Your task to perform on an android device: change the clock display to show seconds Image 0: 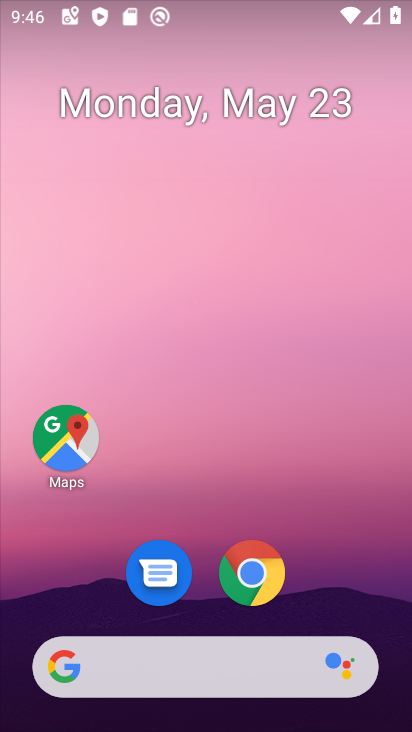
Step 0: drag from (377, 615) to (385, 302)
Your task to perform on an android device: change the clock display to show seconds Image 1: 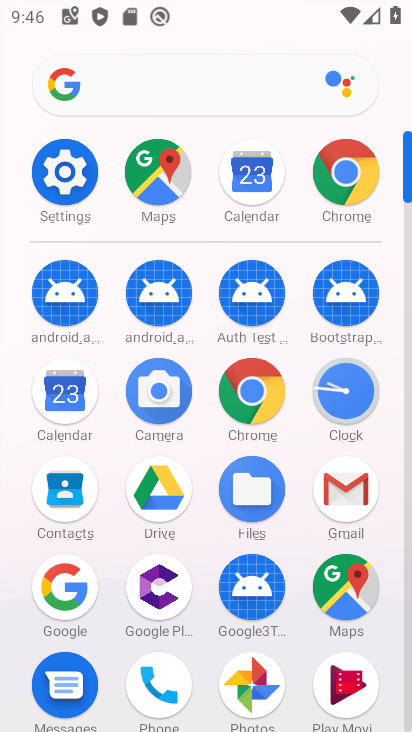
Step 1: click (354, 389)
Your task to perform on an android device: change the clock display to show seconds Image 2: 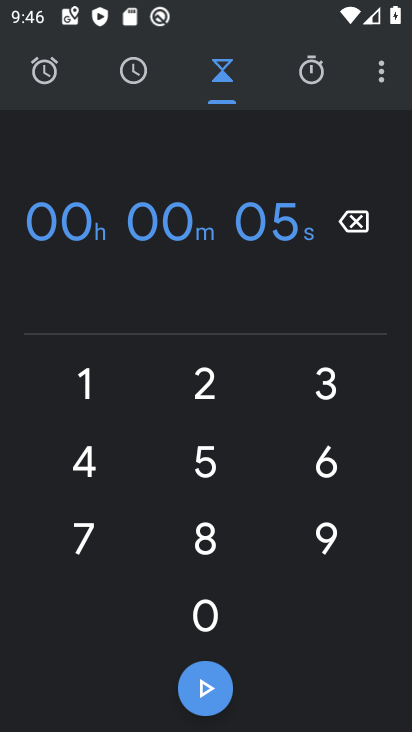
Step 2: click (381, 81)
Your task to perform on an android device: change the clock display to show seconds Image 3: 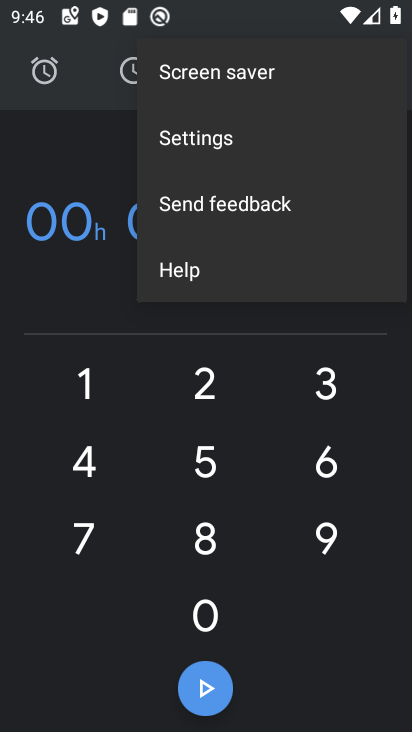
Step 3: click (243, 154)
Your task to perform on an android device: change the clock display to show seconds Image 4: 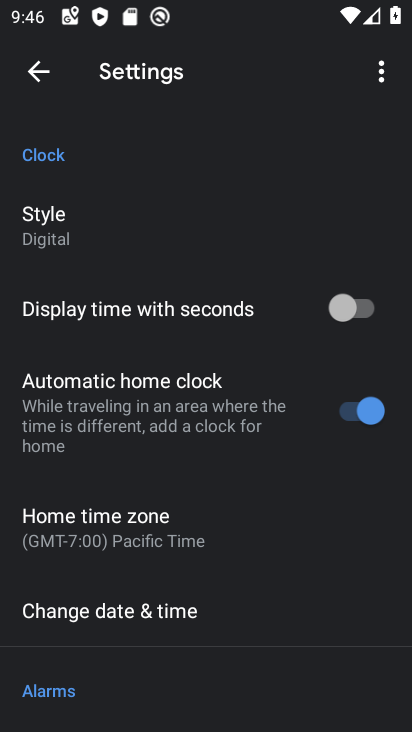
Step 4: drag from (298, 552) to (298, 440)
Your task to perform on an android device: change the clock display to show seconds Image 5: 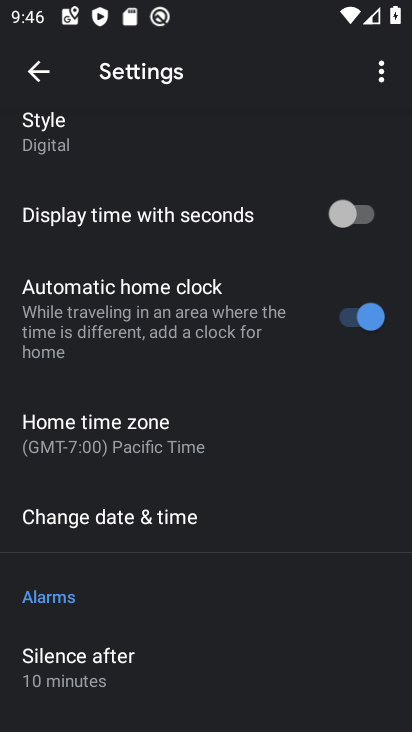
Step 5: drag from (291, 545) to (283, 451)
Your task to perform on an android device: change the clock display to show seconds Image 6: 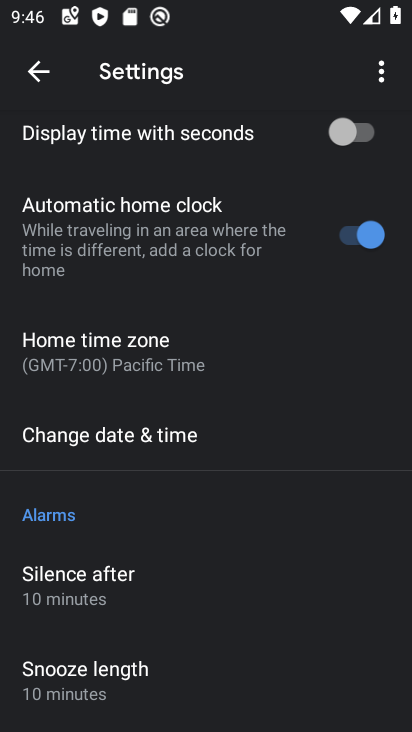
Step 6: drag from (295, 553) to (310, 452)
Your task to perform on an android device: change the clock display to show seconds Image 7: 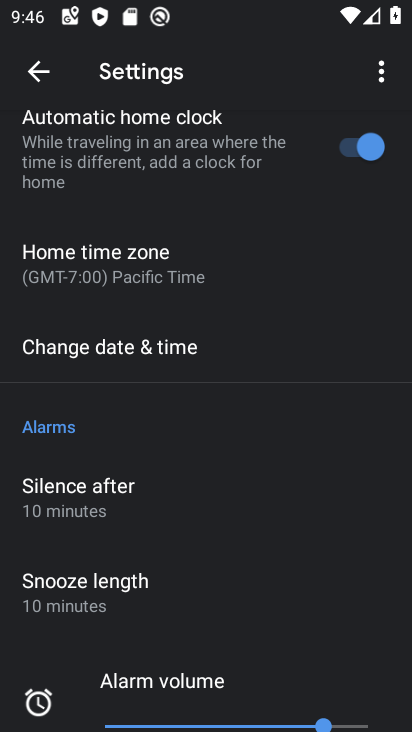
Step 7: drag from (327, 604) to (321, 496)
Your task to perform on an android device: change the clock display to show seconds Image 8: 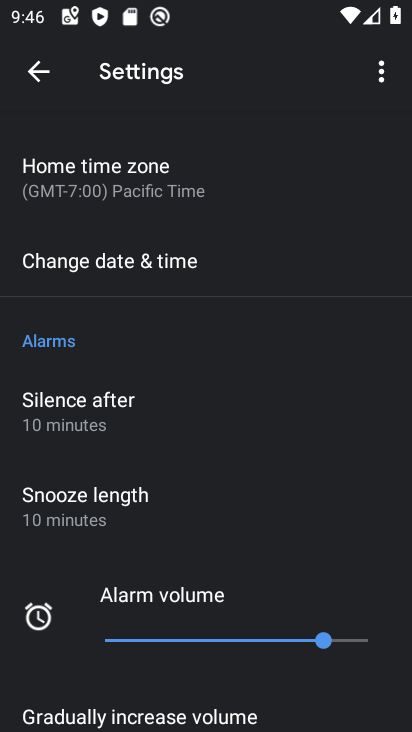
Step 8: drag from (318, 561) to (345, 479)
Your task to perform on an android device: change the clock display to show seconds Image 9: 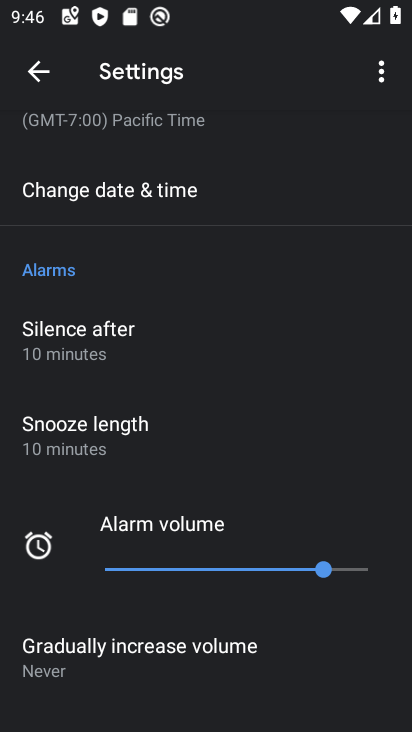
Step 9: drag from (314, 600) to (298, 523)
Your task to perform on an android device: change the clock display to show seconds Image 10: 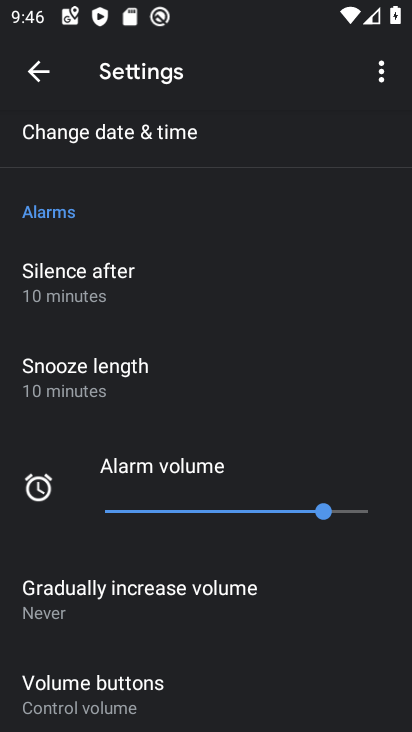
Step 10: drag from (286, 611) to (279, 521)
Your task to perform on an android device: change the clock display to show seconds Image 11: 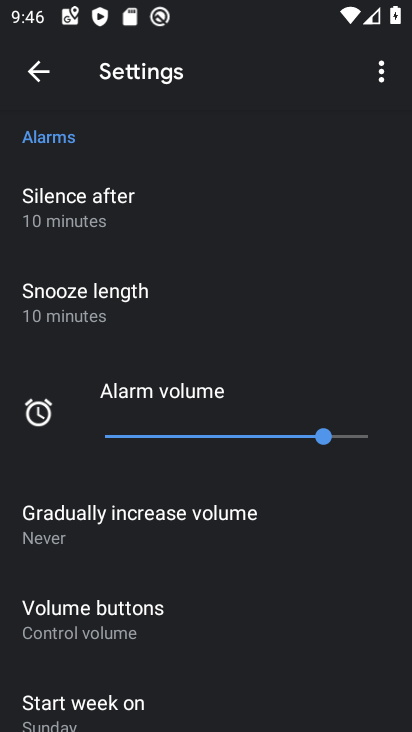
Step 11: drag from (289, 642) to (276, 464)
Your task to perform on an android device: change the clock display to show seconds Image 12: 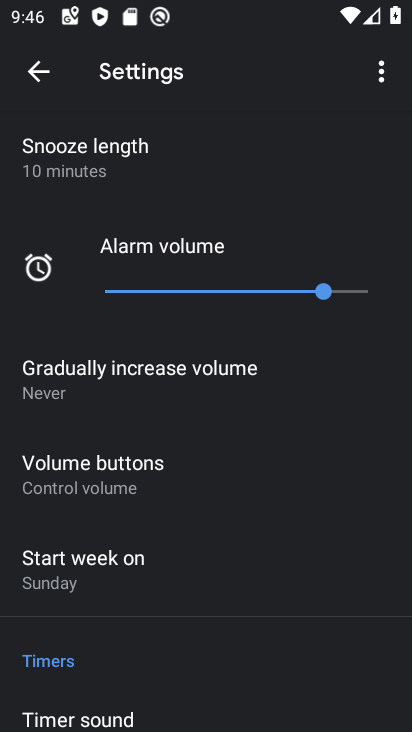
Step 12: drag from (304, 230) to (301, 336)
Your task to perform on an android device: change the clock display to show seconds Image 13: 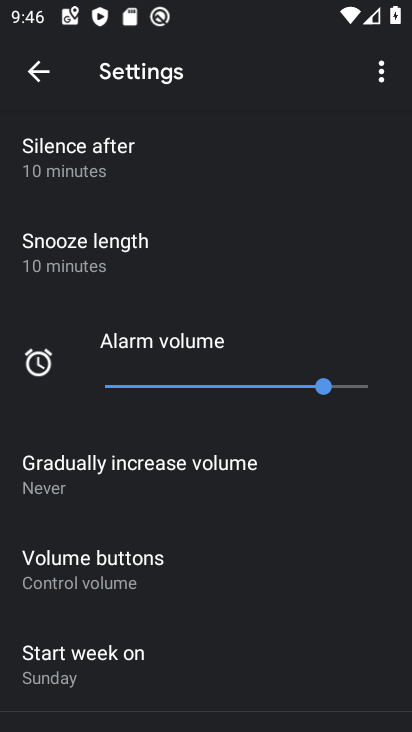
Step 13: drag from (311, 228) to (292, 350)
Your task to perform on an android device: change the clock display to show seconds Image 14: 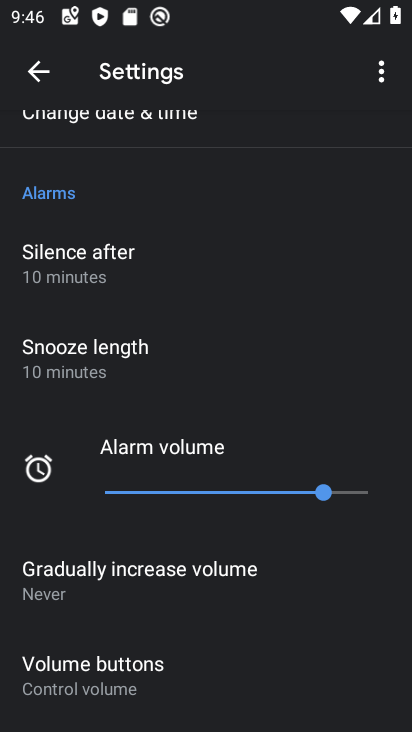
Step 14: drag from (279, 223) to (270, 341)
Your task to perform on an android device: change the clock display to show seconds Image 15: 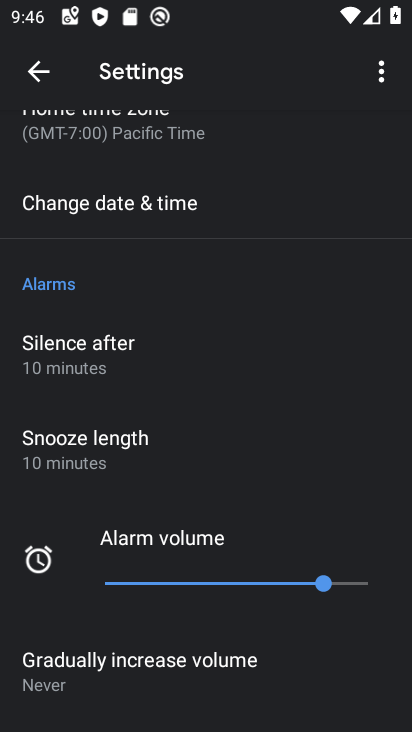
Step 15: drag from (280, 208) to (270, 322)
Your task to perform on an android device: change the clock display to show seconds Image 16: 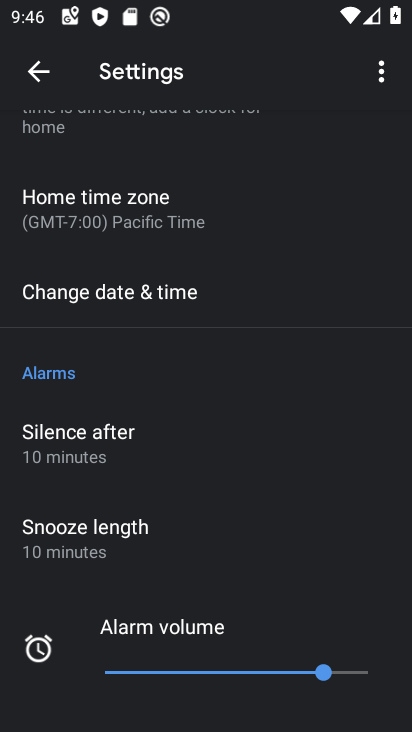
Step 16: drag from (260, 204) to (240, 355)
Your task to perform on an android device: change the clock display to show seconds Image 17: 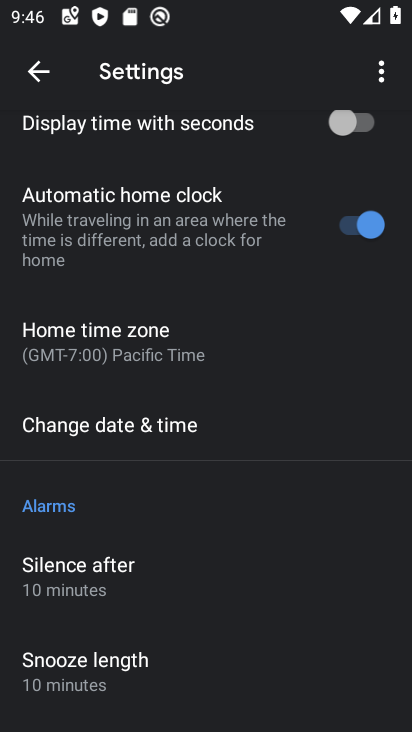
Step 17: drag from (268, 206) to (284, 367)
Your task to perform on an android device: change the clock display to show seconds Image 18: 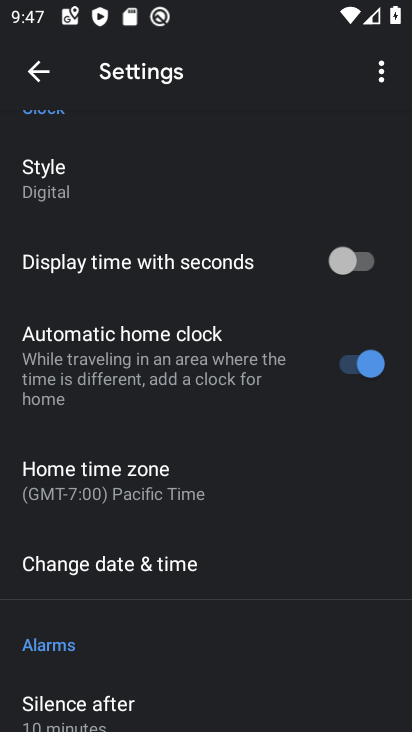
Step 18: drag from (273, 206) to (267, 360)
Your task to perform on an android device: change the clock display to show seconds Image 19: 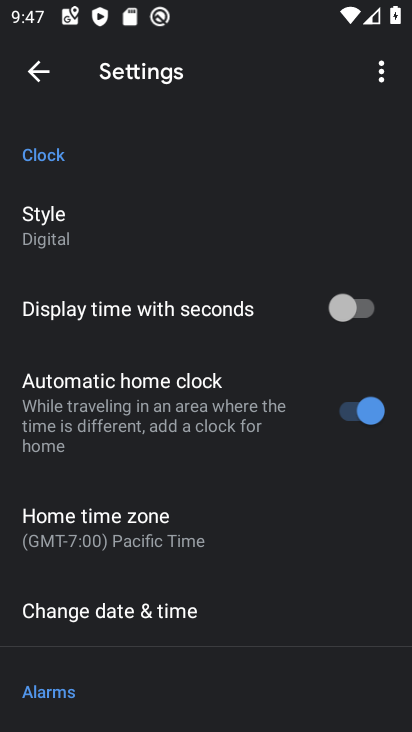
Step 19: drag from (280, 235) to (264, 375)
Your task to perform on an android device: change the clock display to show seconds Image 20: 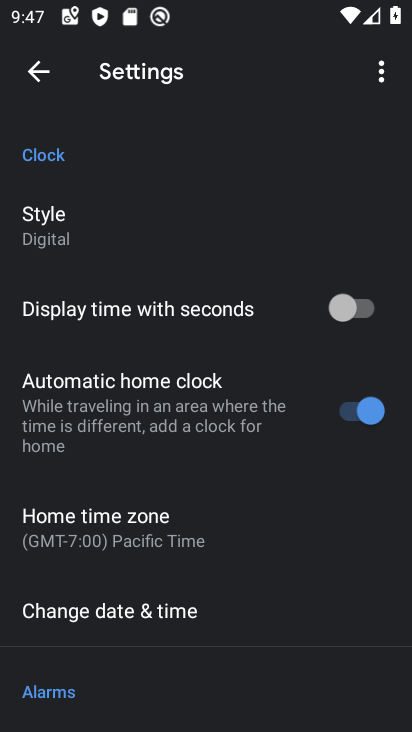
Step 20: click (340, 337)
Your task to perform on an android device: change the clock display to show seconds Image 21: 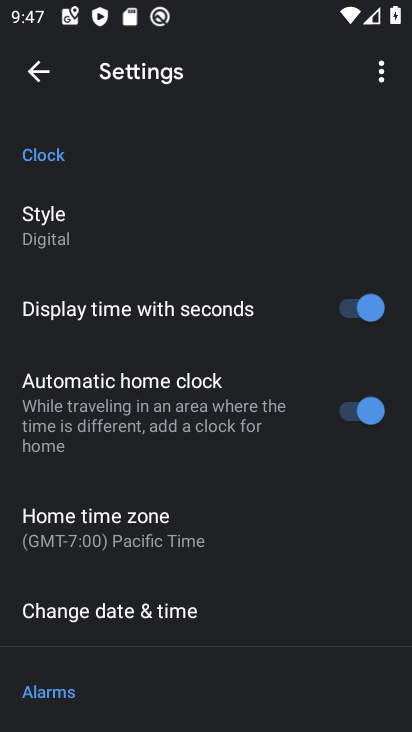
Step 21: task complete